Your task to perform on an android device: remove spam from my inbox in the gmail app Image 0: 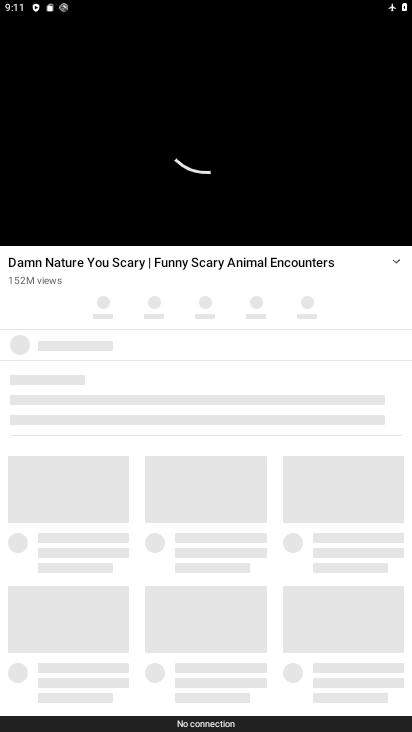
Step 0: press home button
Your task to perform on an android device: remove spam from my inbox in the gmail app Image 1: 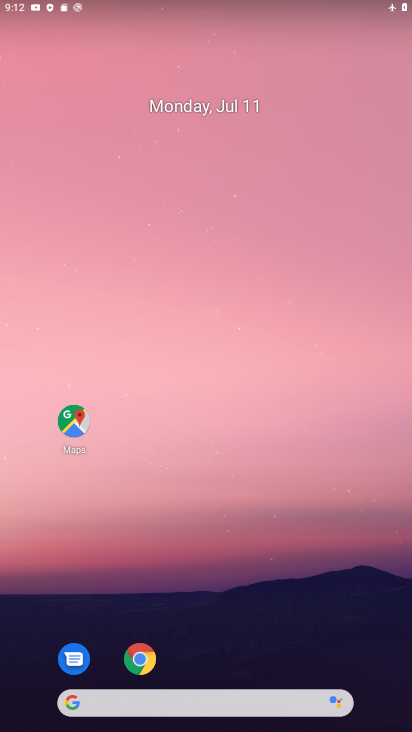
Step 1: drag from (206, 660) to (192, 179)
Your task to perform on an android device: remove spam from my inbox in the gmail app Image 2: 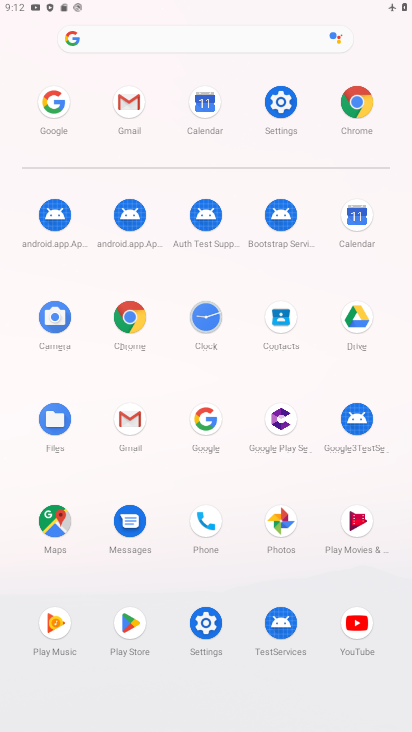
Step 2: click (139, 112)
Your task to perform on an android device: remove spam from my inbox in the gmail app Image 3: 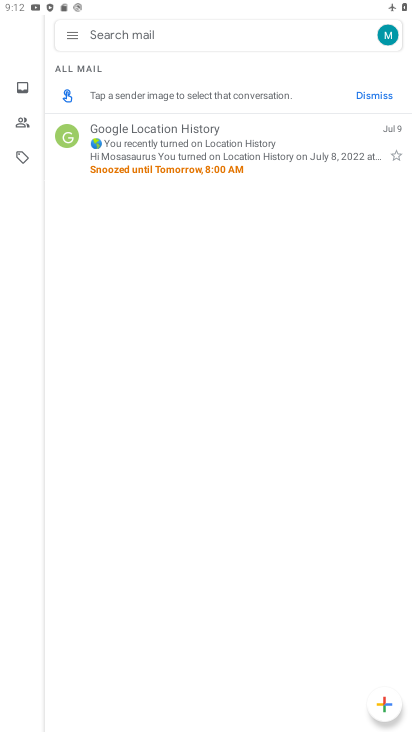
Step 3: click (67, 37)
Your task to perform on an android device: remove spam from my inbox in the gmail app Image 4: 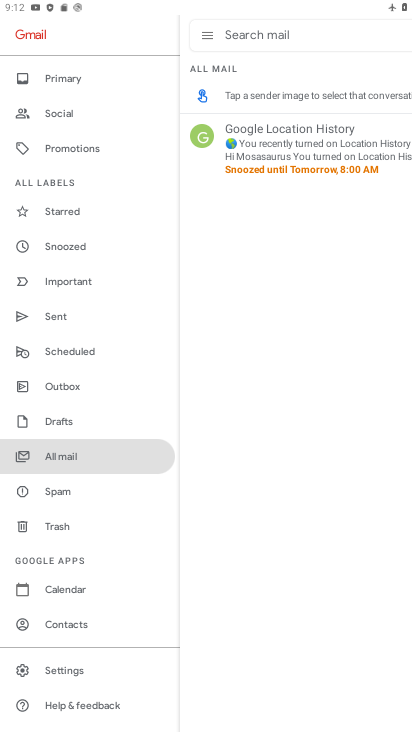
Step 4: click (74, 496)
Your task to perform on an android device: remove spam from my inbox in the gmail app Image 5: 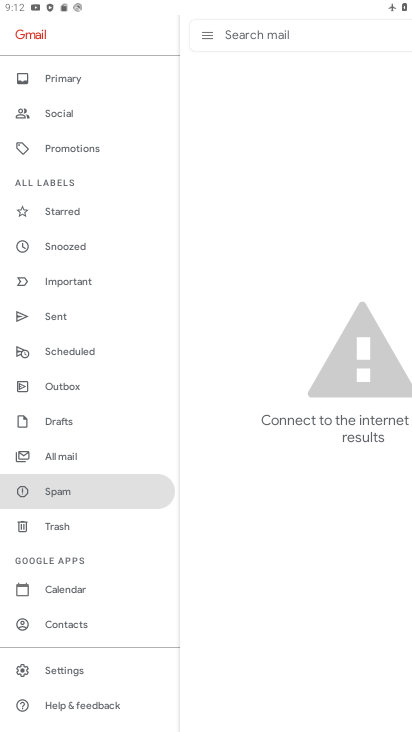
Step 5: task complete